Your task to perform on an android device: open app "Speedtest by Ookla" (install if not already installed) Image 0: 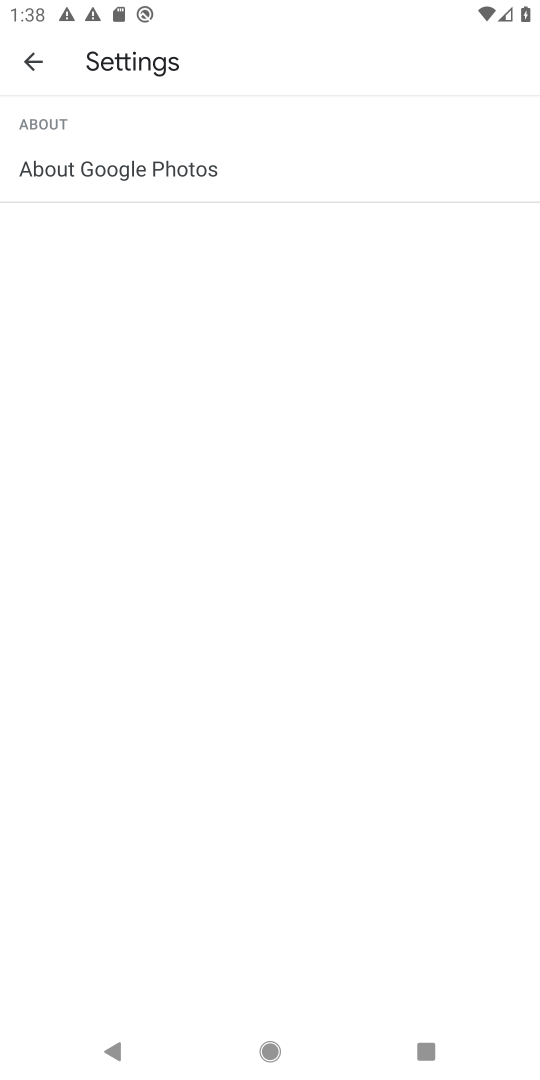
Step 0: press home button
Your task to perform on an android device: open app "Speedtest by Ookla" (install if not already installed) Image 1: 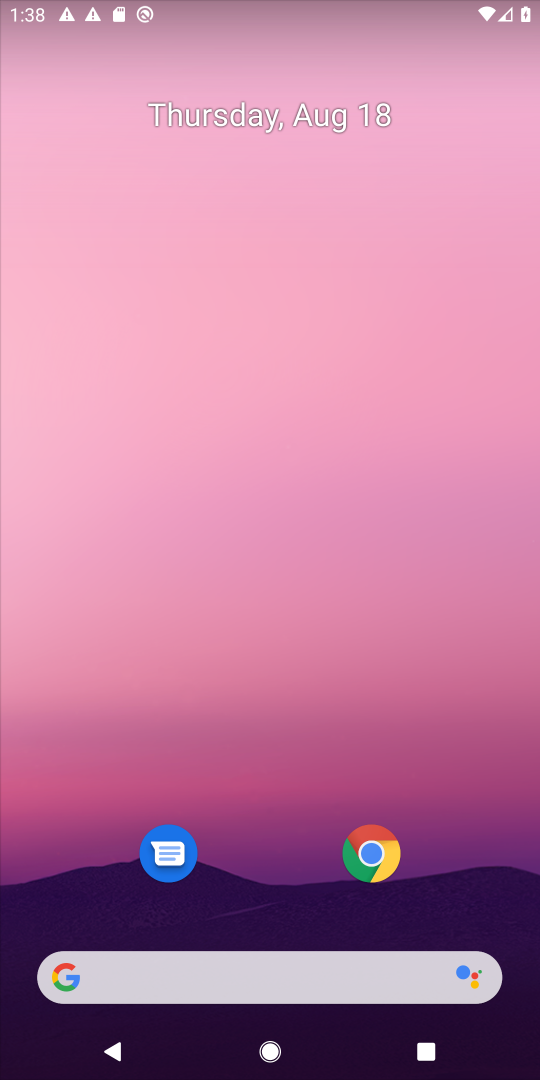
Step 1: drag from (298, 984) to (391, 222)
Your task to perform on an android device: open app "Speedtest by Ookla" (install if not already installed) Image 2: 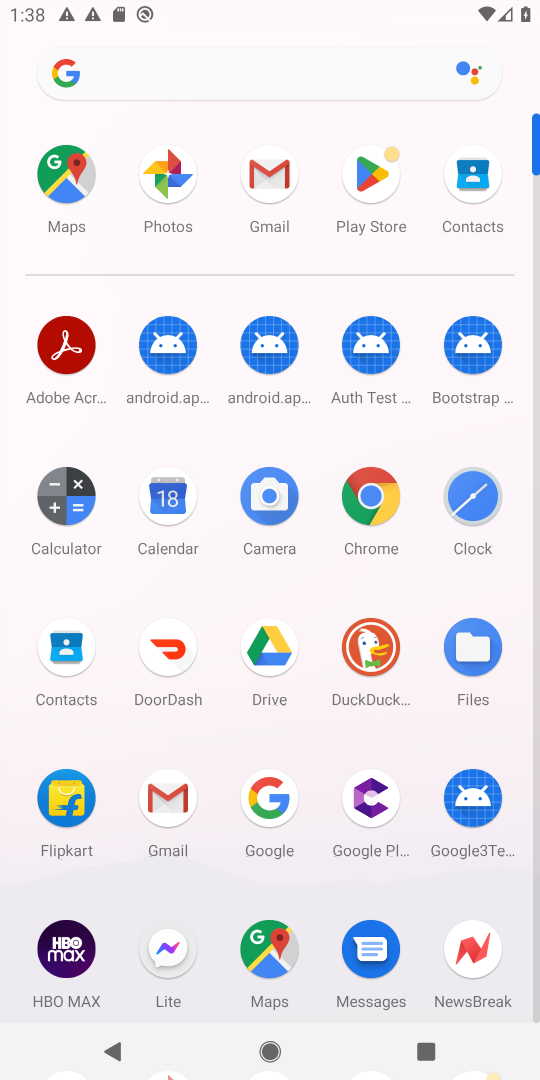
Step 2: click (301, 761)
Your task to perform on an android device: open app "Speedtest by Ookla" (install if not already installed) Image 3: 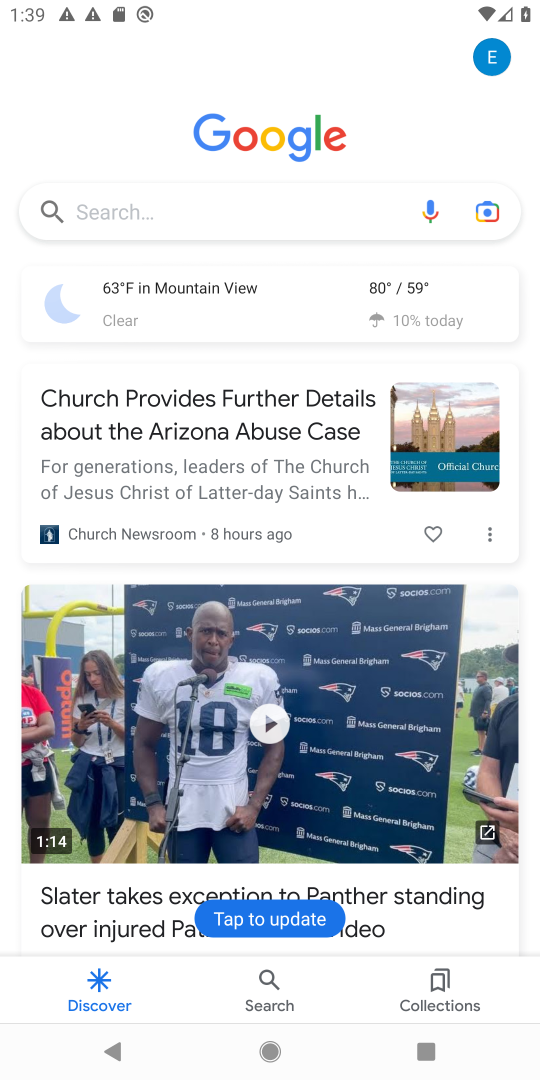
Step 3: press home button
Your task to perform on an android device: open app "Speedtest by Ookla" (install if not already installed) Image 4: 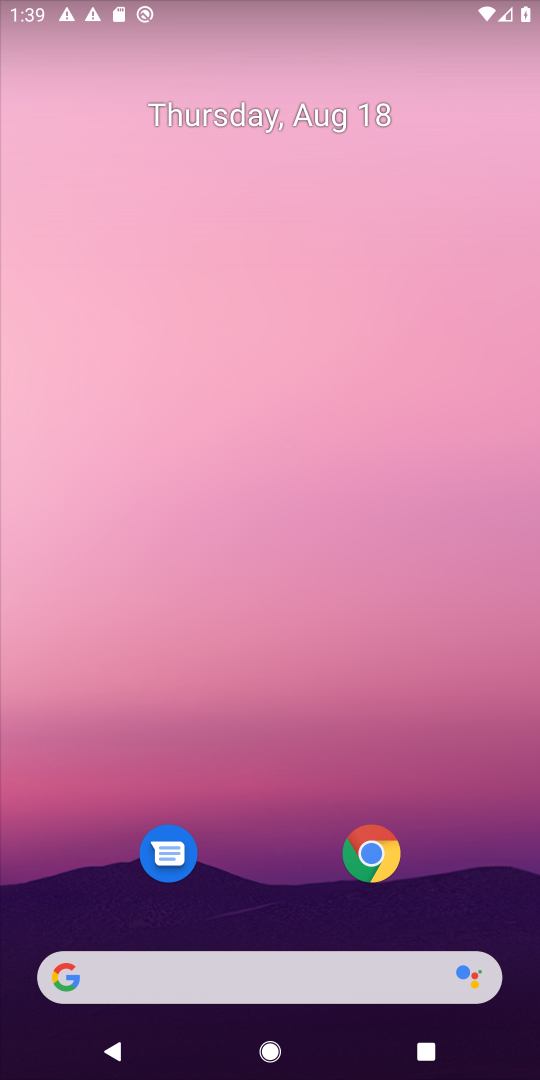
Step 4: drag from (308, 649) to (395, 283)
Your task to perform on an android device: open app "Speedtest by Ookla" (install if not already installed) Image 5: 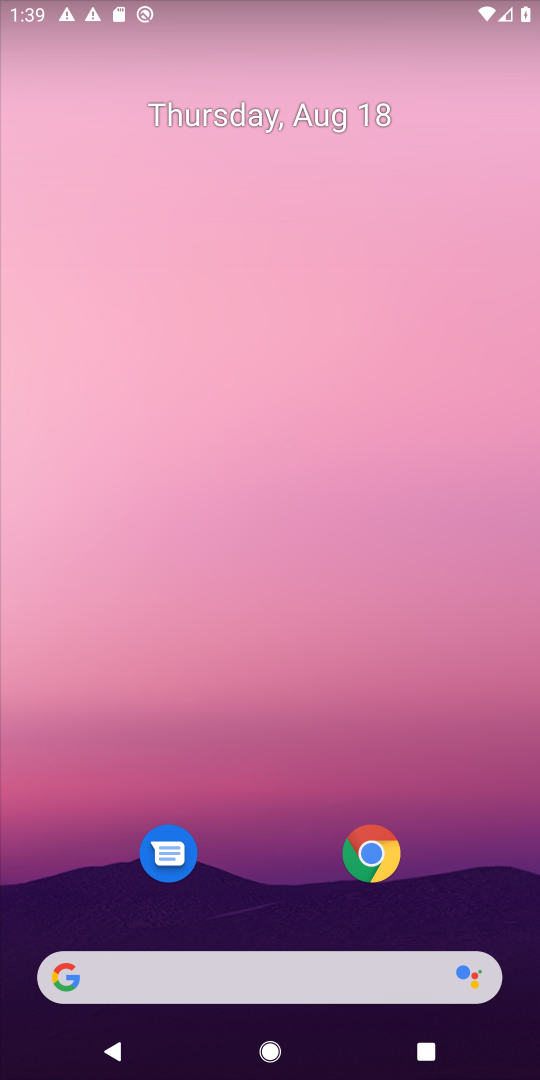
Step 5: drag from (233, 744) to (285, 343)
Your task to perform on an android device: open app "Speedtest by Ookla" (install if not already installed) Image 6: 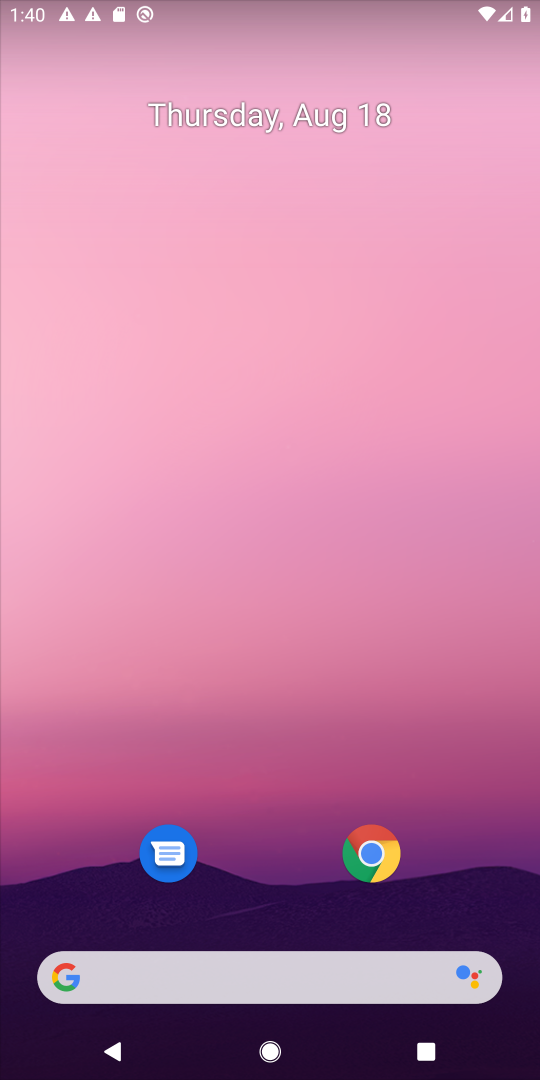
Step 6: drag from (257, 855) to (337, 207)
Your task to perform on an android device: open app "Speedtest by Ookla" (install if not already installed) Image 7: 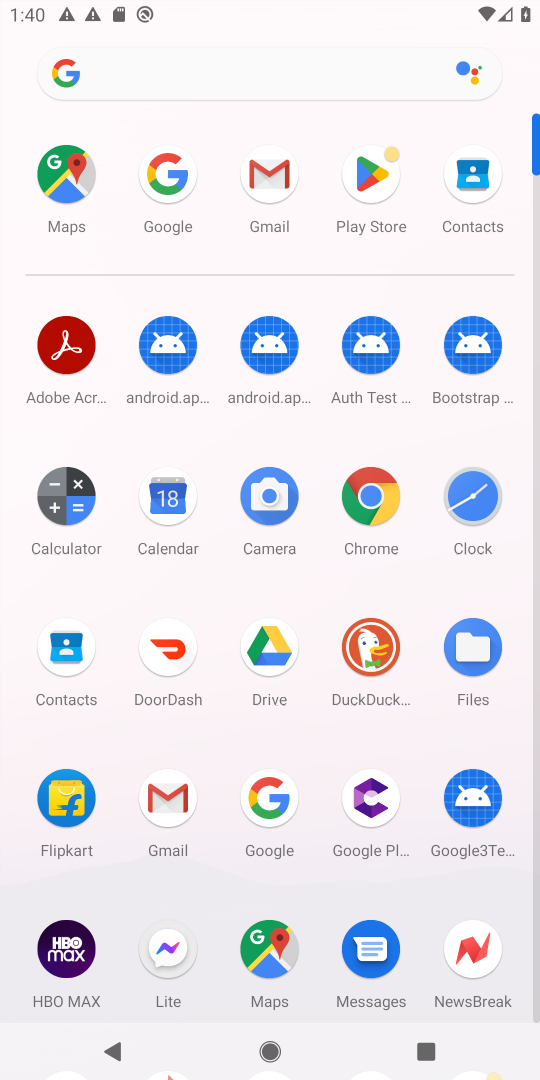
Step 7: click (365, 229)
Your task to perform on an android device: open app "Speedtest by Ookla" (install if not already installed) Image 8: 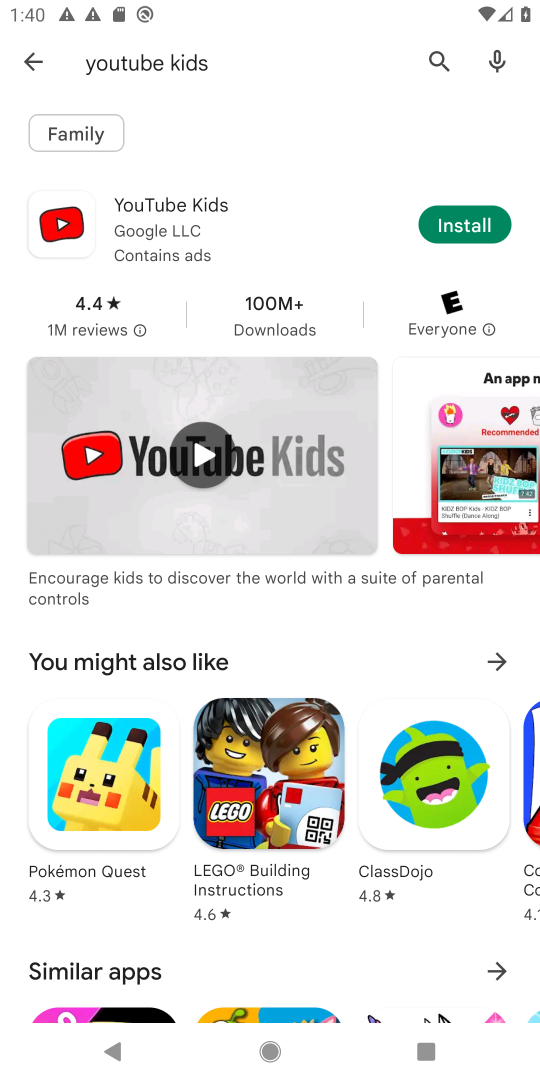
Step 8: click (35, 67)
Your task to perform on an android device: open app "Speedtest by Ookla" (install if not already installed) Image 9: 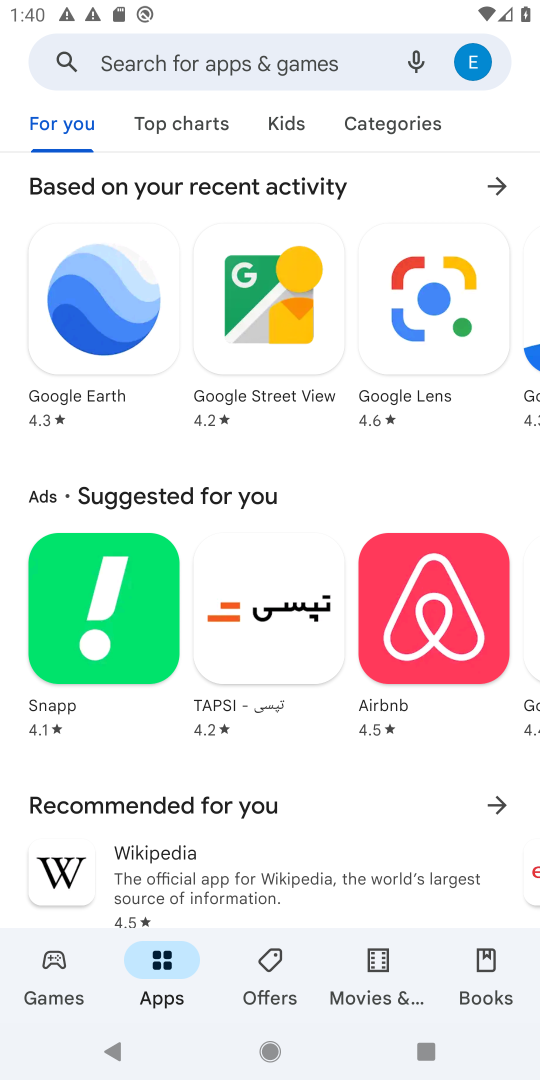
Step 9: click (127, 70)
Your task to perform on an android device: open app "Speedtest by Ookla" (install if not already installed) Image 10: 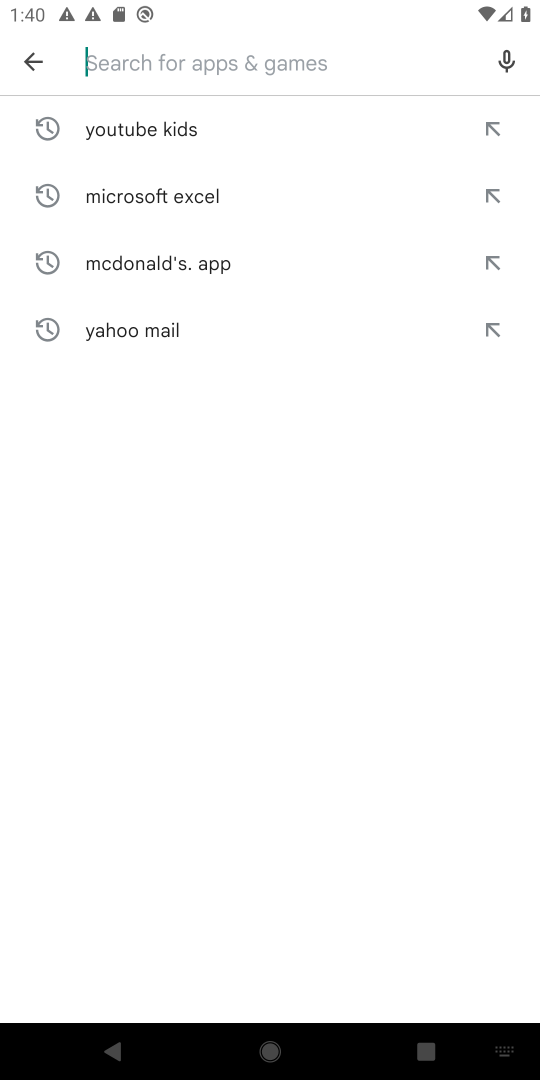
Step 10: type "Speedtest by Ookla"
Your task to perform on an android device: open app "Speedtest by Ookla" (install if not already installed) Image 11: 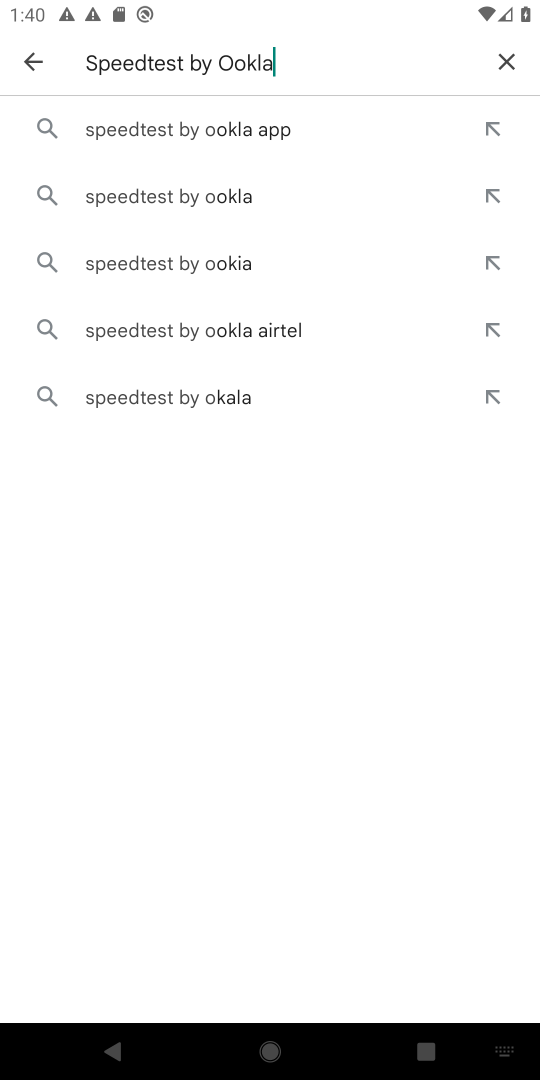
Step 11: type ""
Your task to perform on an android device: open app "Speedtest by Ookla" (install if not already installed) Image 12: 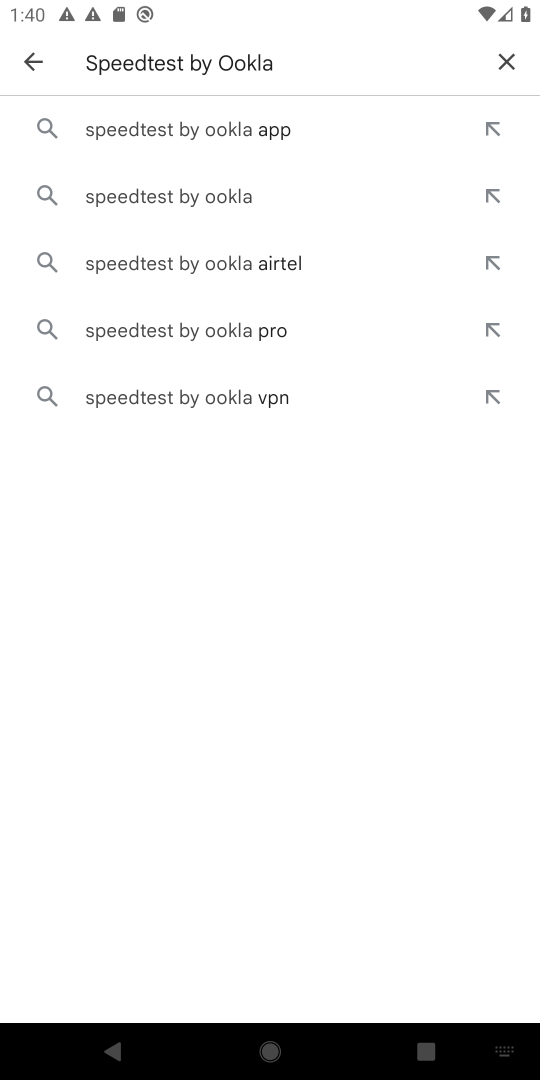
Step 12: click (258, 132)
Your task to perform on an android device: open app "Speedtest by Ookla" (install if not already installed) Image 13: 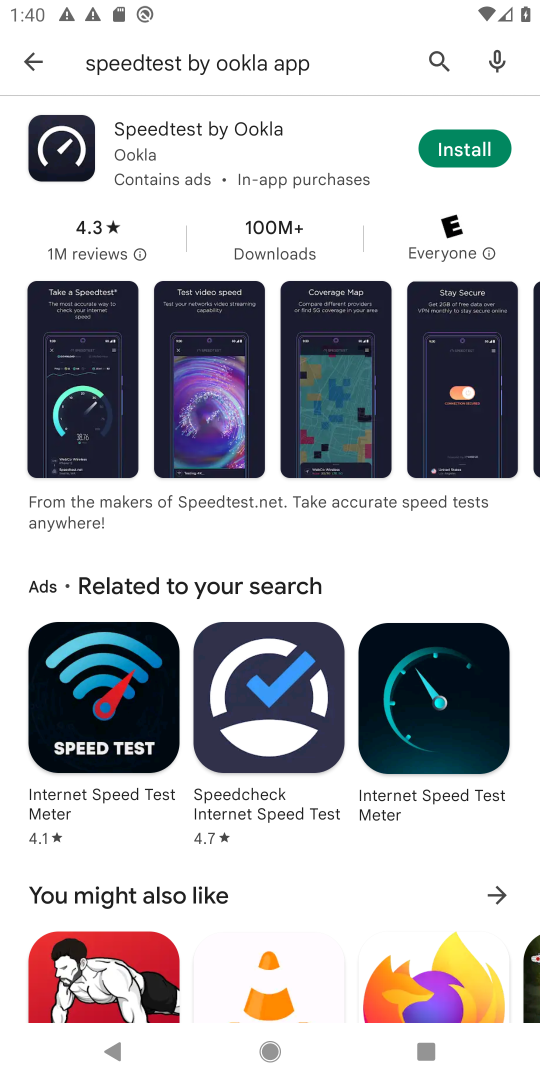
Step 13: click (481, 154)
Your task to perform on an android device: open app "Speedtest by Ookla" (install if not already installed) Image 14: 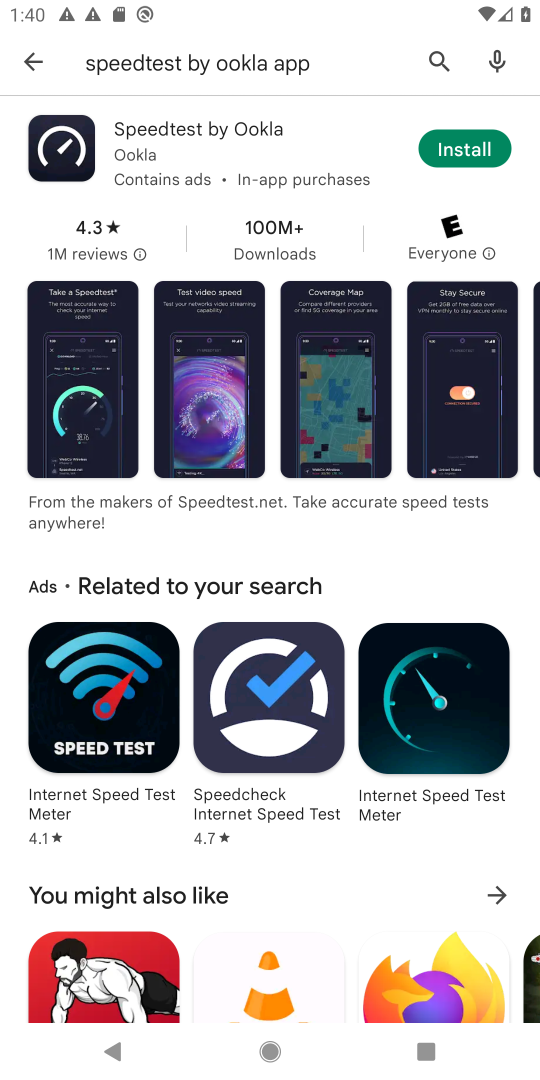
Step 14: click (461, 144)
Your task to perform on an android device: open app "Speedtest by Ookla" (install if not already installed) Image 15: 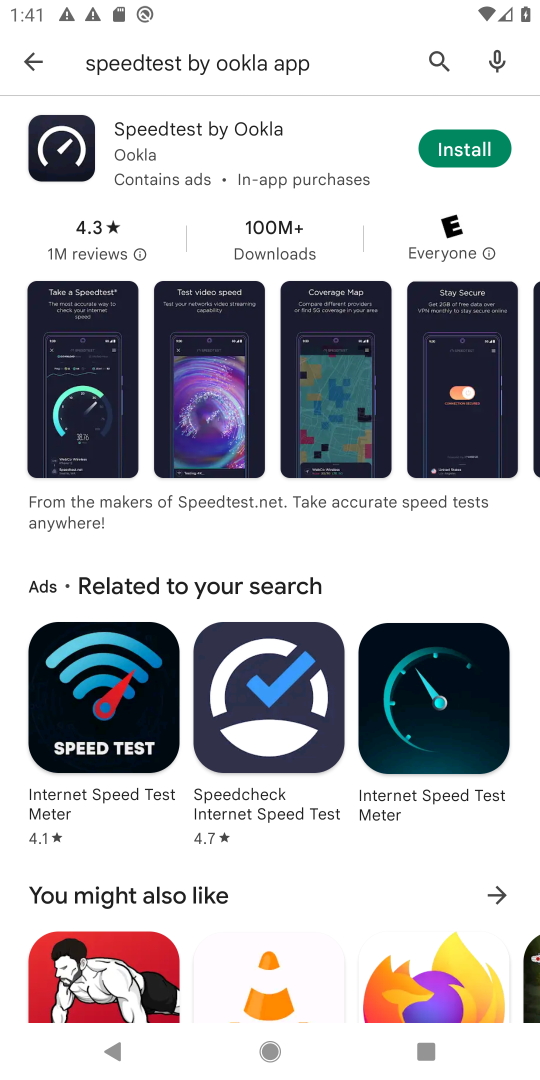
Step 15: task complete